Your task to perform on an android device: Open settings Image 0: 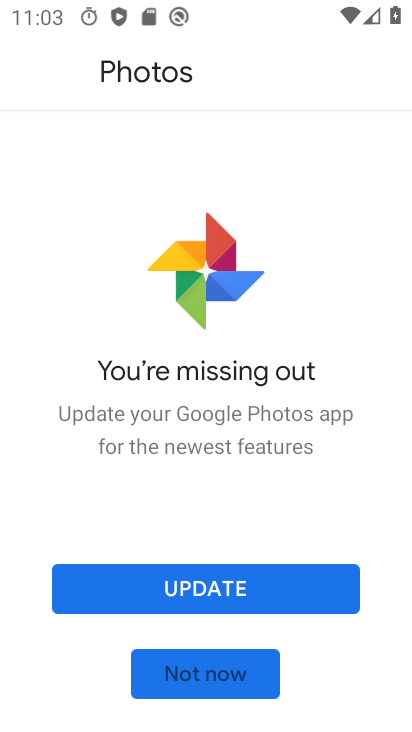
Step 0: click (222, 675)
Your task to perform on an android device: Open settings Image 1: 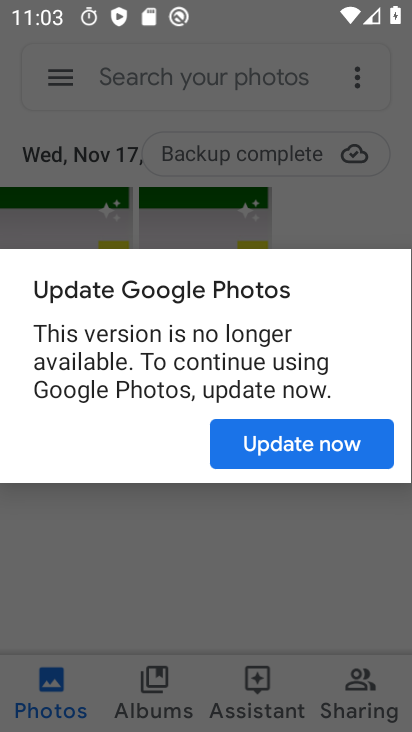
Step 1: click (321, 438)
Your task to perform on an android device: Open settings Image 2: 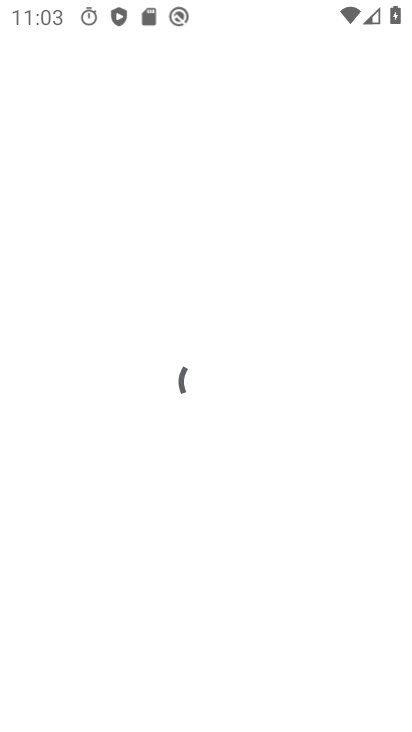
Step 2: press home button
Your task to perform on an android device: Open settings Image 3: 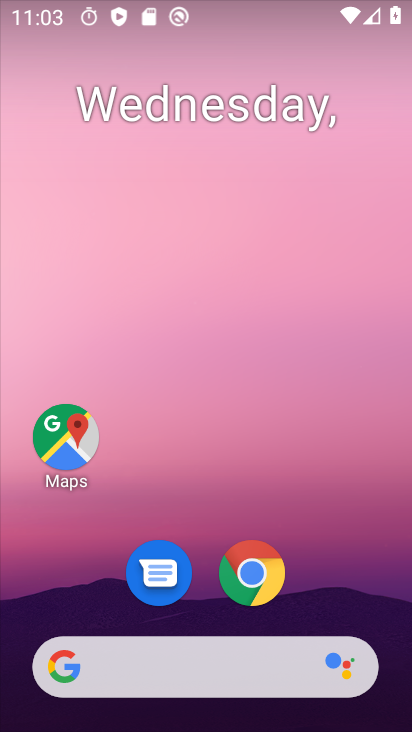
Step 3: click (358, 230)
Your task to perform on an android device: Open settings Image 4: 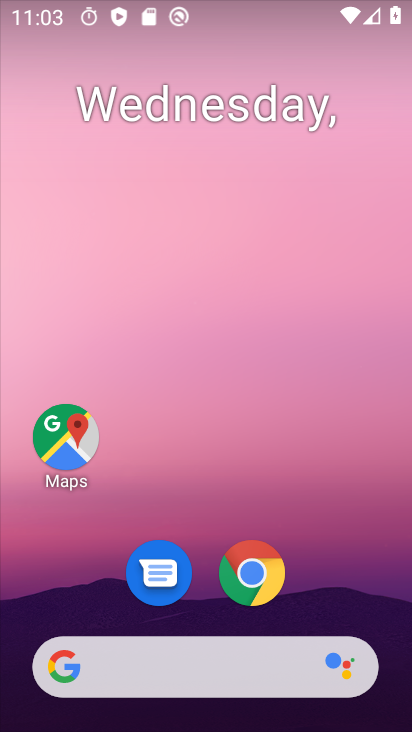
Step 4: drag from (381, 401) to (374, 166)
Your task to perform on an android device: Open settings Image 5: 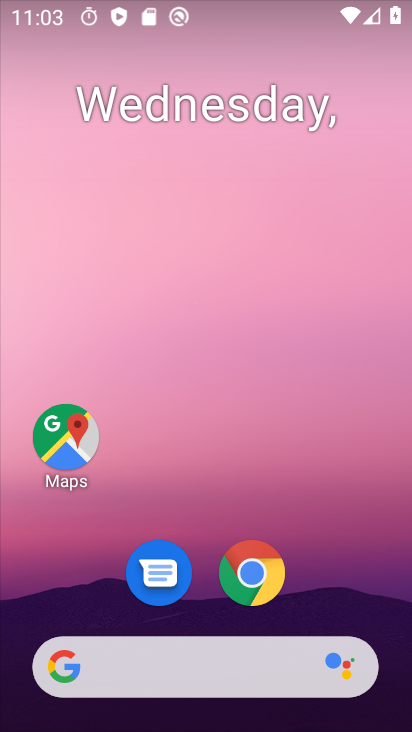
Step 5: drag from (340, 231) to (327, 188)
Your task to perform on an android device: Open settings Image 6: 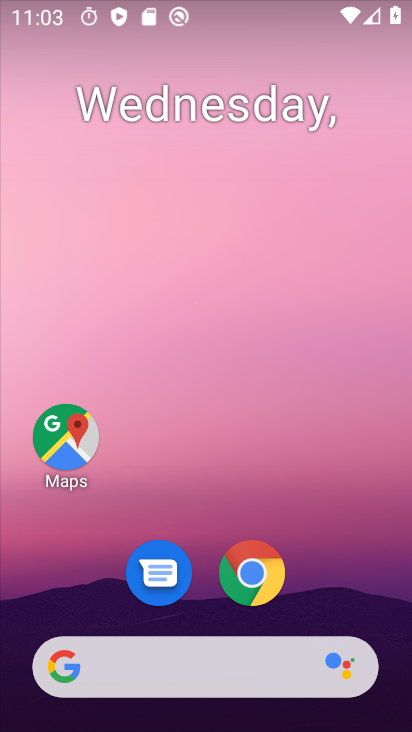
Step 6: drag from (396, 341) to (373, 96)
Your task to perform on an android device: Open settings Image 7: 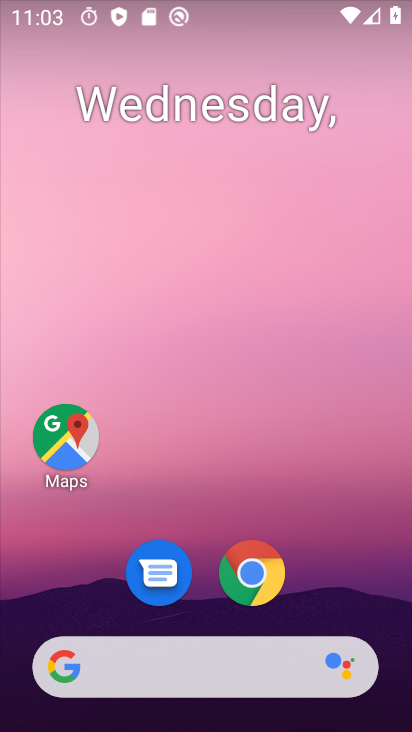
Step 7: drag from (380, 598) to (339, 137)
Your task to perform on an android device: Open settings Image 8: 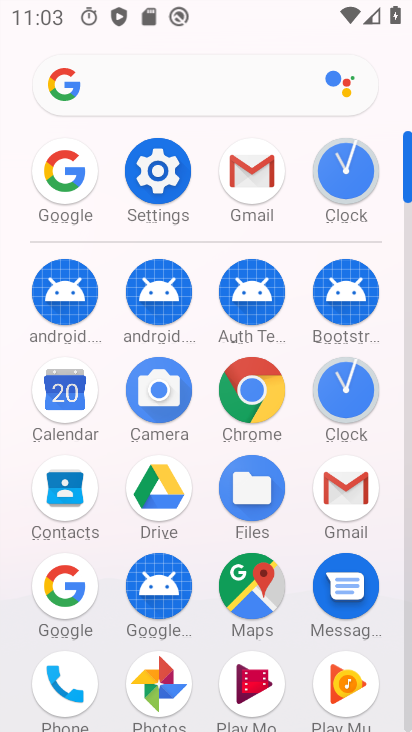
Step 8: click (145, 176)
Your task to perform on an android device: Open settings Image 9: 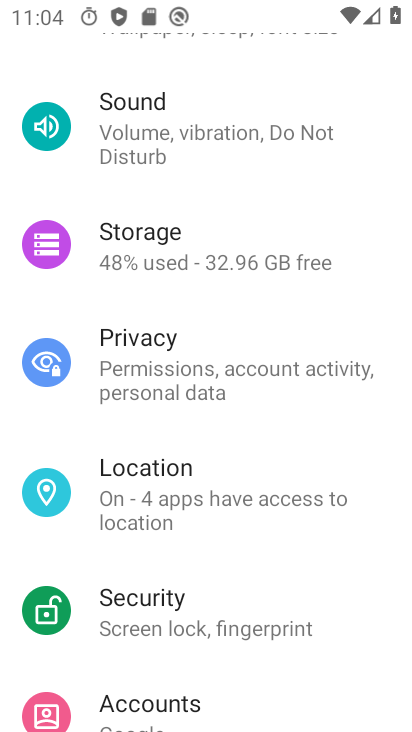
Step 9: task complete